Your task to perform on an android device: check battery use Image 0: 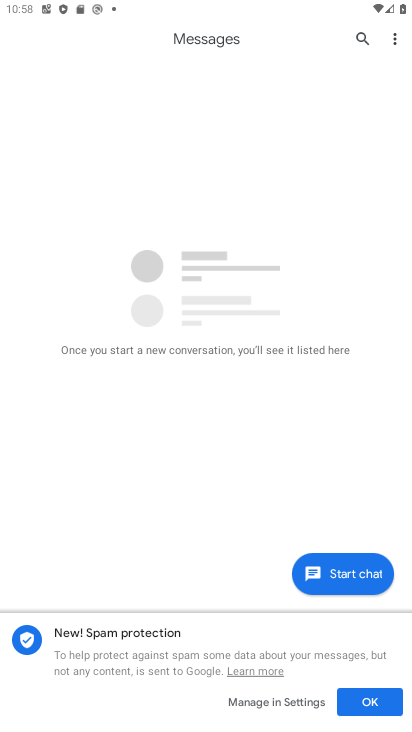
Step 0: press home button
Your task to perform on an android device: check battery use Image 1: 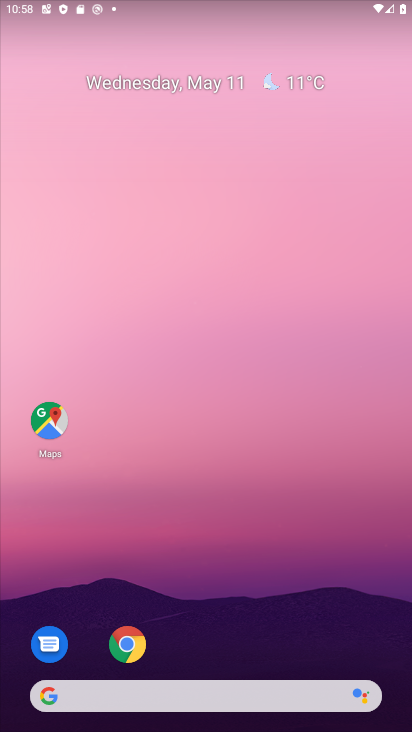
Step 1: drag from (208, 665) to (233, 182)
Your task to perform on an android device: check battery use Image 2: 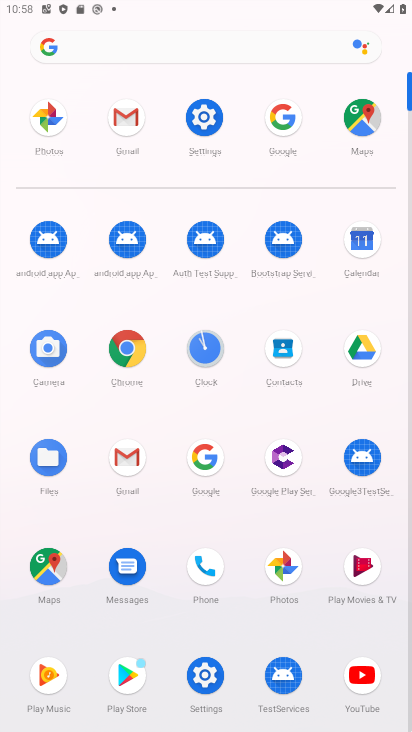
Step 2: click (197, 115)
Your task to perform on an android device: check battery use Image 3: 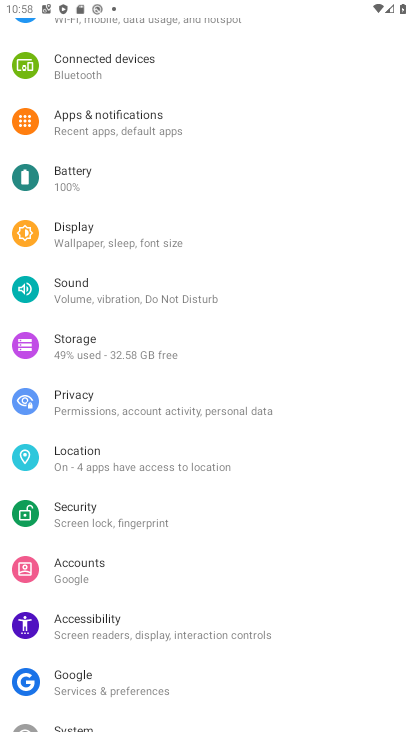
Step 3: click (107, 175)
Your task to perform on an android device: check battery use Image 4: 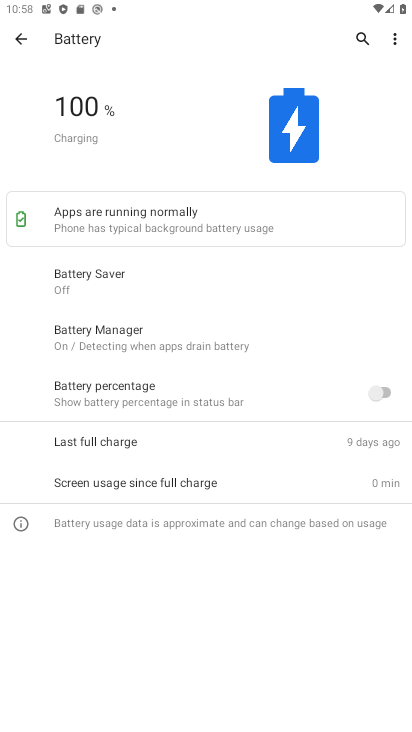
Step 4: click (394, 36)
Your task to perform on an android device: check battery use Image 5: 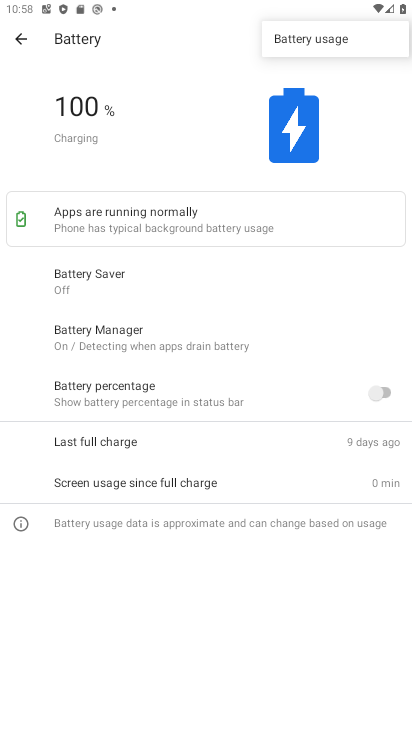
Step 5: click (306, 42)
Your task to perform on an android device: check battery use Image 6: 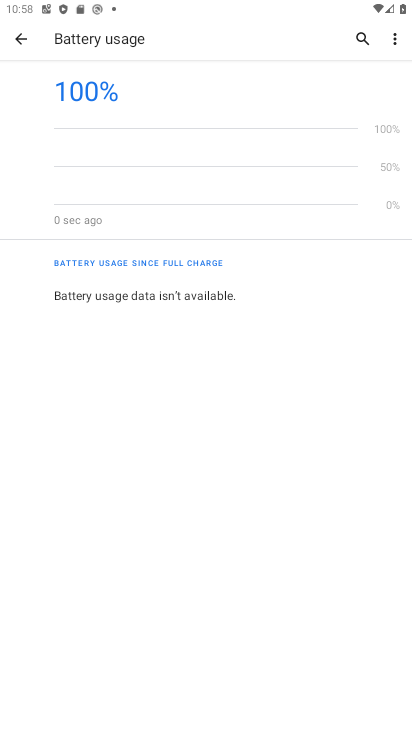
Step 6: task complete